Your task to perform on an android device: turn notification dots on Image 0: 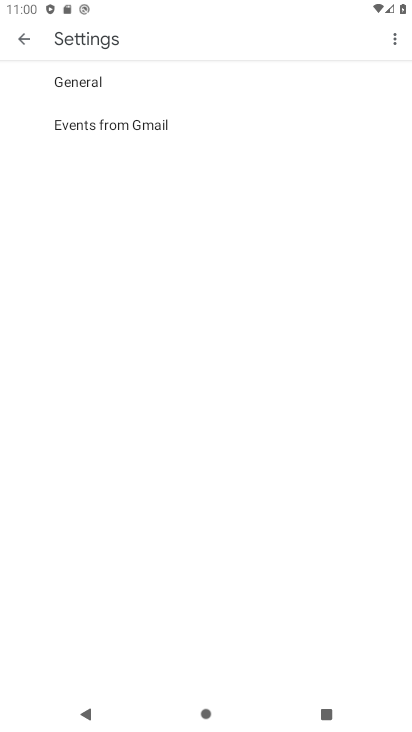
Step 0: press home button
Your task to perform on an android device: turn notification dots on Image 1: 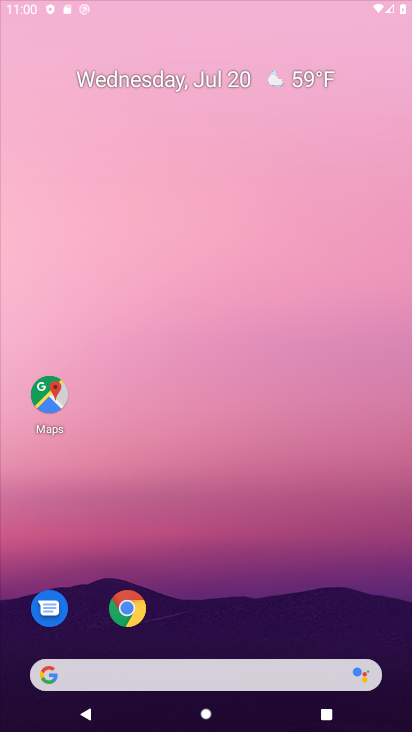
Step 1: drag from (193, 160) to (224, 21)
Your task to perform on an android device: turn notification dots on Image 2: 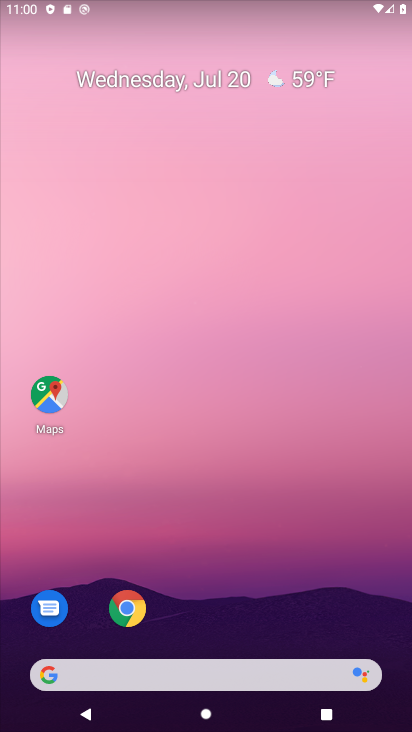
Step 2: drag from (319, 519) to (321, 9)
Your task to perform on an android device: turn notification dots on Image 3: 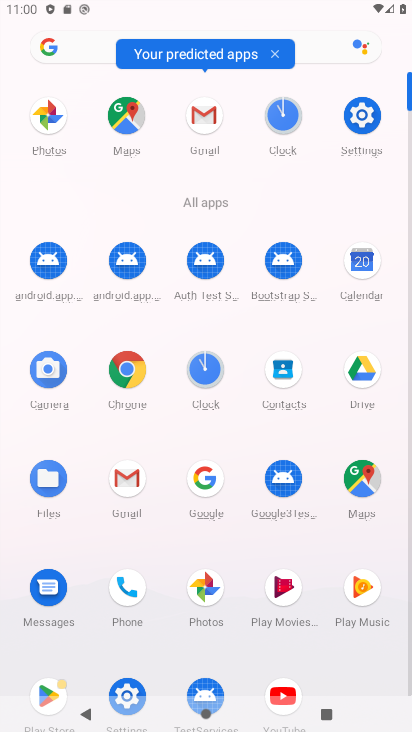
Step 3: click (368, 121)
Your task to perform on an android device: turn notification dots on Image 4: 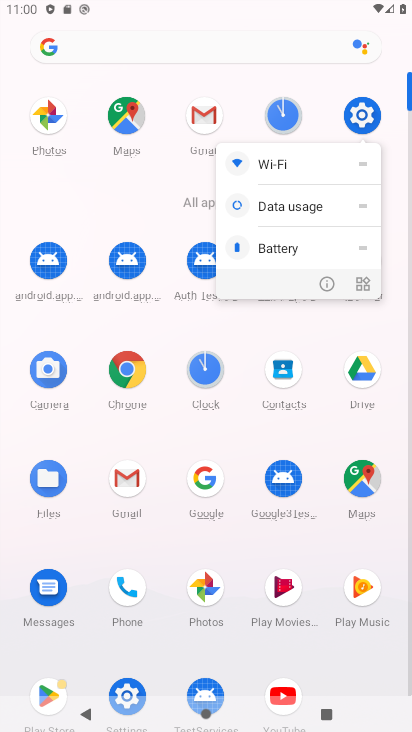
Step 4: click (368, 121)
Your task to perform on an android device: turn notification dots on Image 5: 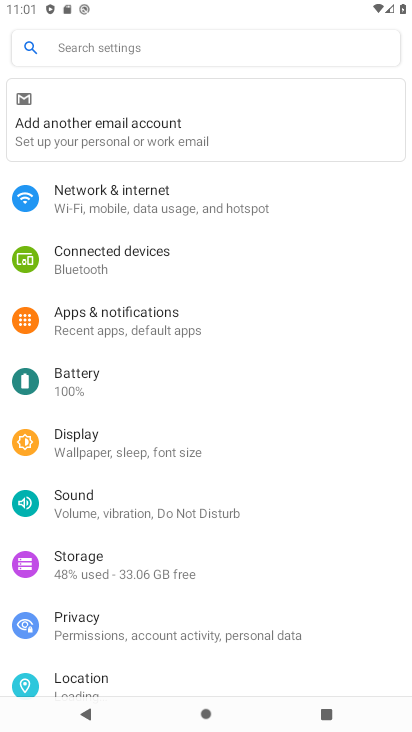
Step 5: click (122, 314)
Your task to perform on an android device: turn notification dots on Image 6: 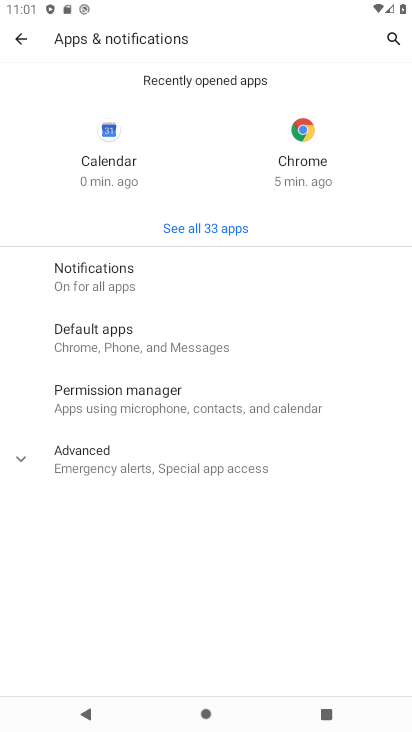
Step 6: click (86, 282)
Your task to perform on an android device: turn notification dots on Image 7: 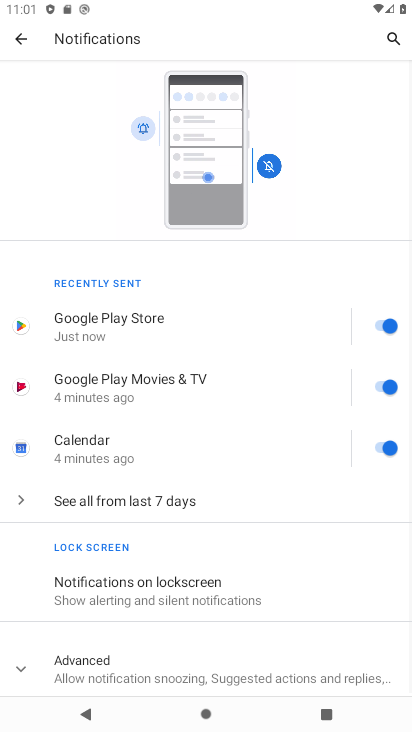
Step 7: drag from (119, 570) to (150, 153)
Your task to perform on an android device: turn notification dots on Image 8: 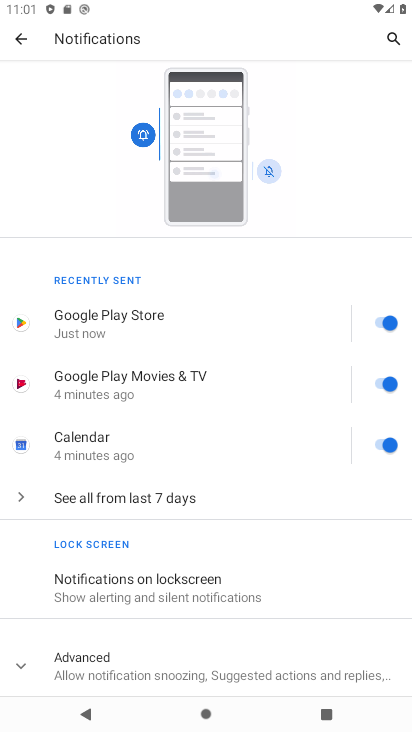
Step 8: click (105, 665)
Your task to perform on an android device: turn notification dots on Image 9: 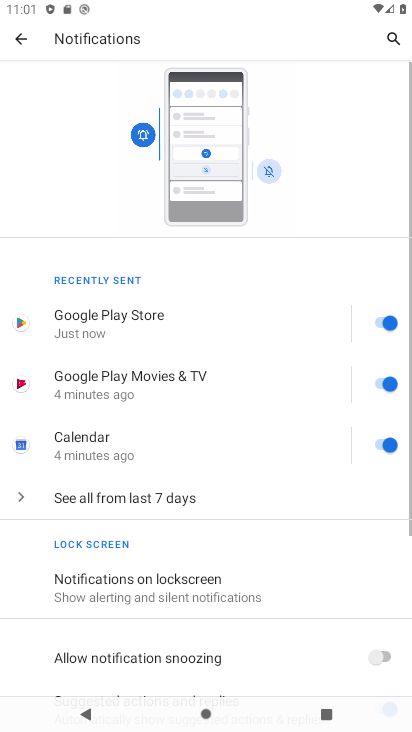
Step 9: task complete